Your task to perform on an android device: Clear the shopping cart on ebay.com. Search for usb-a to usb-b on ebay.com, select the first entry, and add it to the cart. Image 0: 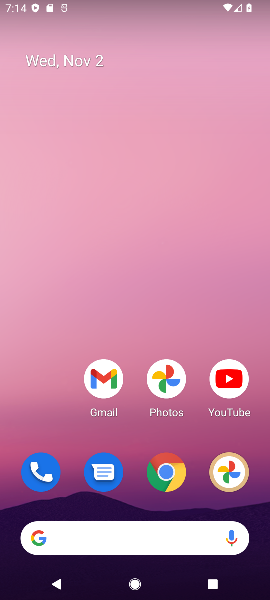
Step 0: click (173, 475)
Your task to perform on an android device: Clear the shopping cart on ebay.com. Search for usb-a to usb-b on ebay.com, select the first entry, and add it to the cart. Image 1: 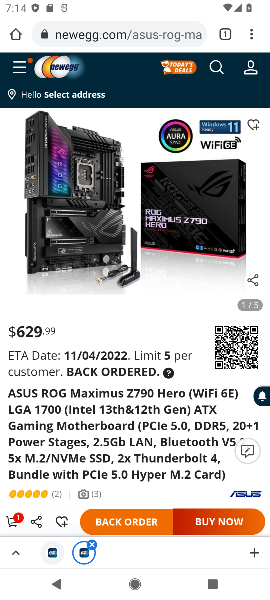
Step 1: task complete